Your task to perform on an android device: When is my next appointment? Image 0: 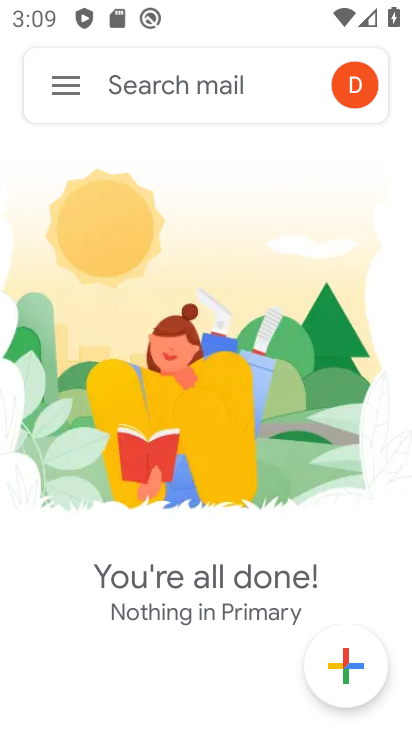
Step 0: press back button
Your task to perform on an android device: When is my next appointment? Image 1: 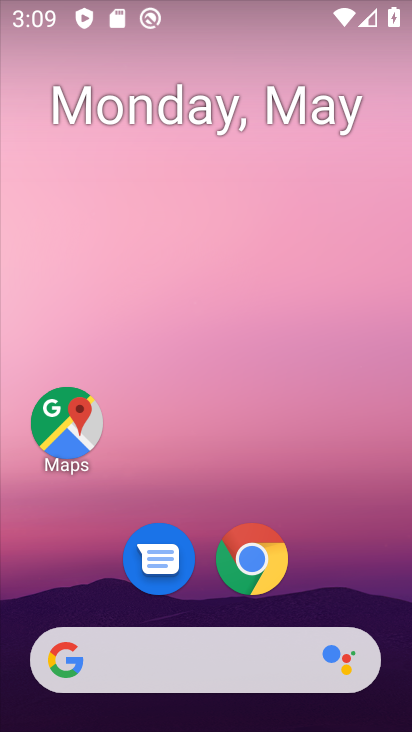
Step 1: drag from (298, 518) to (102, 42)
Your task to perform on an android device: When is my next appointment? Image 2: 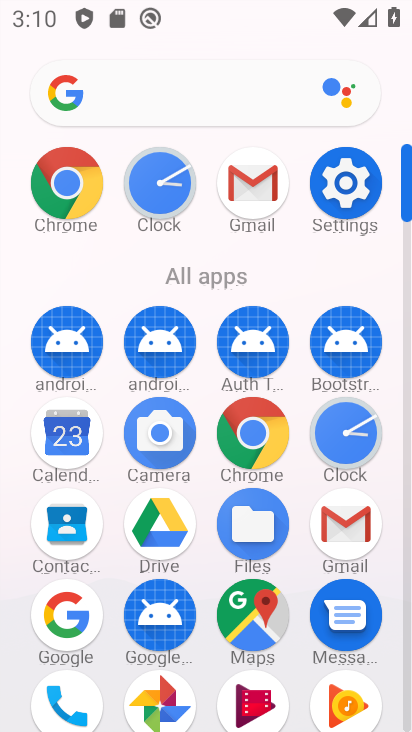
Step 2: click (53, 442)
Your task to perform on an android device: When is my next appointment? Image 3: 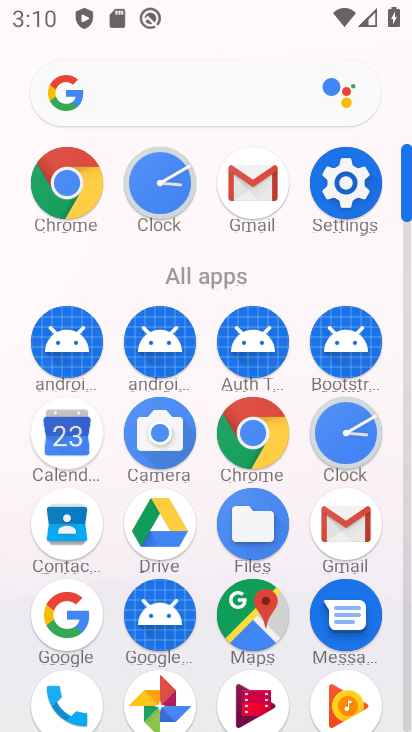
Step 3: click (53, 442)
Your task to perform on an android device: When is my next appointment? Image 4: 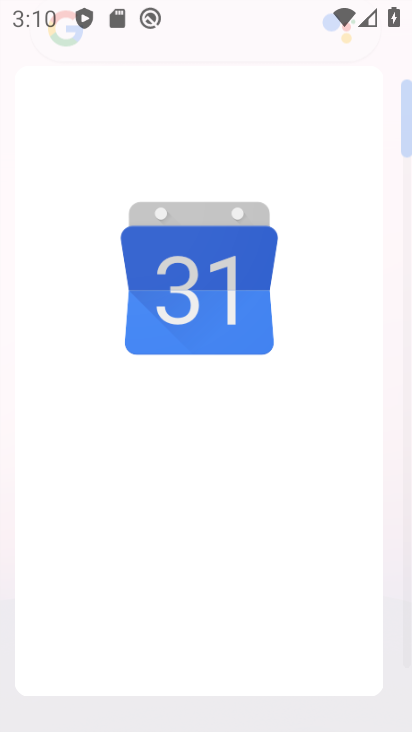
Step 4: click (54, 442)
Your task to perform on an android device: When is my next appointment? Image 5: 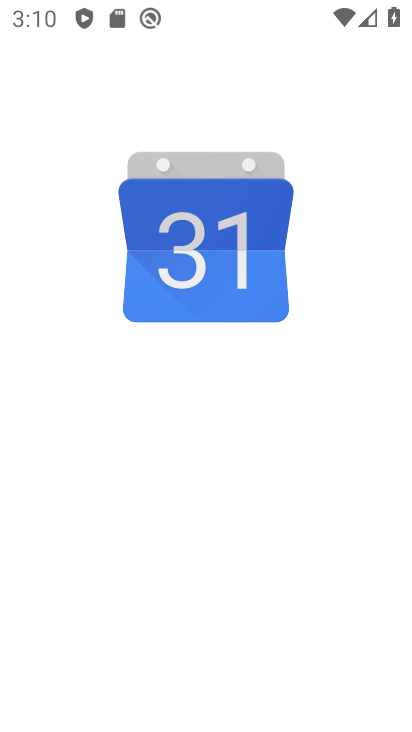
Step 5: click (57, 443)
Your task to perform on an android device: When is my next appointment? Image 6: 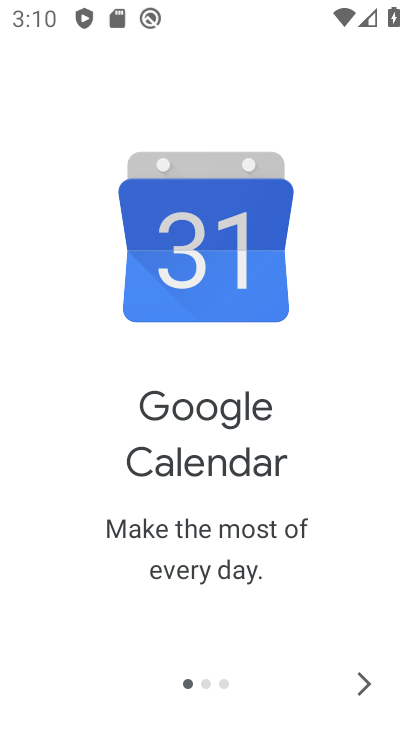
Step 6: click (358, 684)
Your task to perform on an android device: When is my next appointment? Image 7: 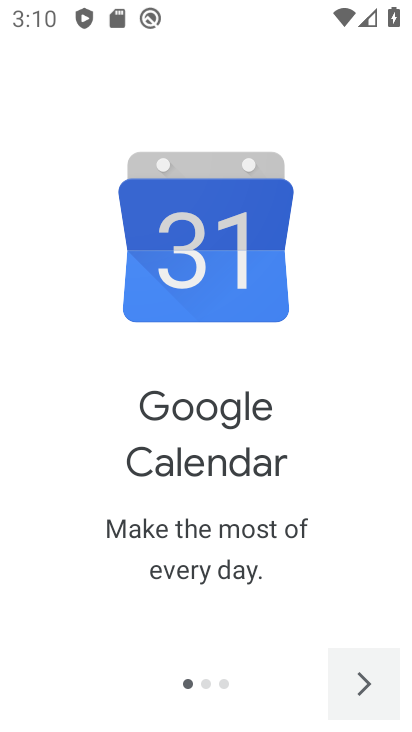
Step 7: click (368, 681)
Your task to perform on an android device: When is my next appointment? Image 8: 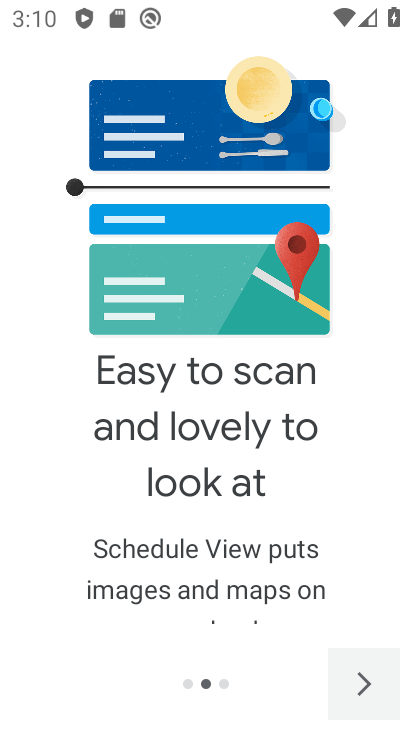
Step 8: click (369, 680)
Your task to perform on an android device: When is my next appointment? Image 9: 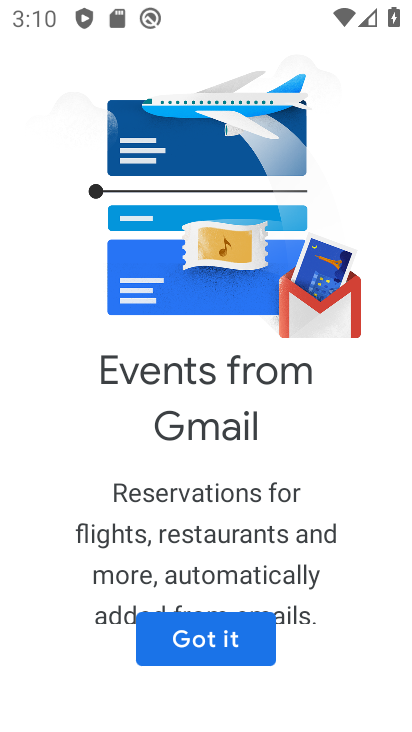
Step 9: click (242, 642)
Your task to perform on an android device: When is my next appointment? Image 10: 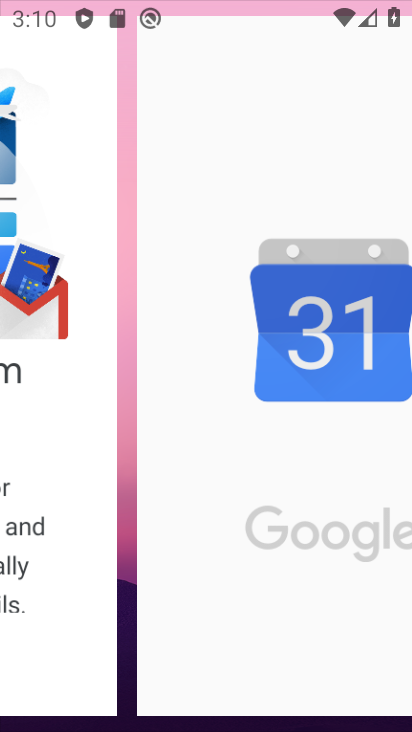
Step 10: click (242, 642)
Your task to perform on an android device: When is my next appointment? Image 11: 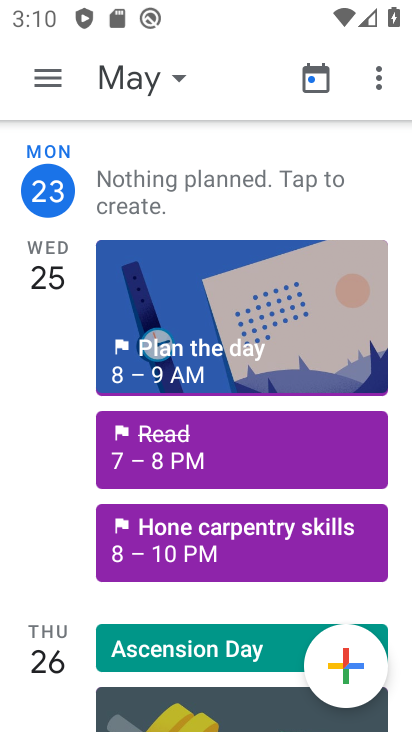
Step 11: task complete